Your task to perform on an android device: Open Google Chrome and open the bookmarks view Image 0: 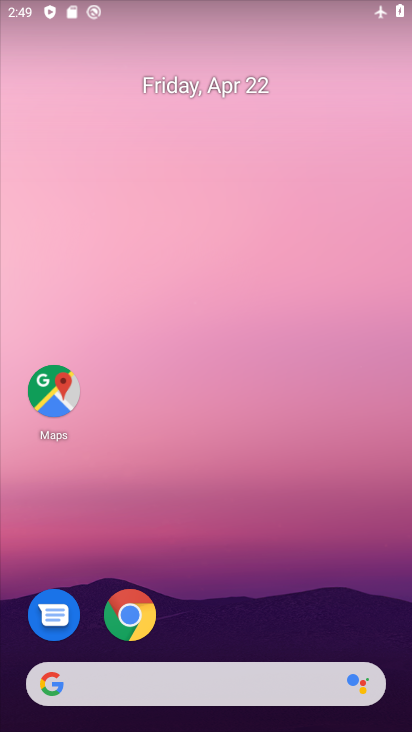
Step 0: drag from (288, 561) to (253, 160)
Your task to perform on an android device: Open Google Chrome and open the bookmarks view Image 1: 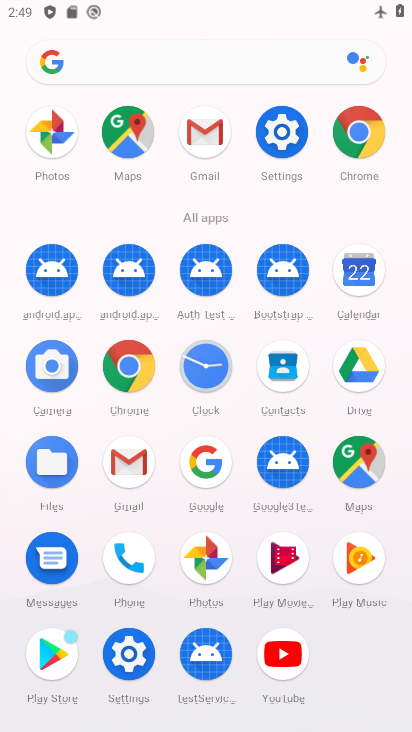
Step 1: click (379, 121)
Your task to perform on an android device: Open Google Chrome and open the bookmarks view Image 2: 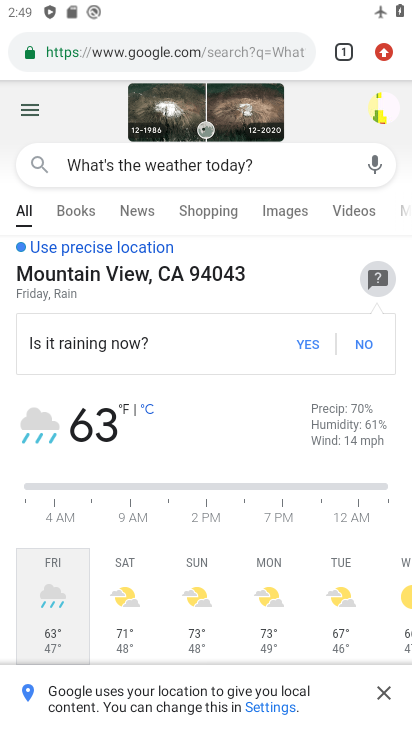
Step 2: click (384, 73)
Your task to perform on an android device: Open Google Chrome and open the bookmarks view Image 3: 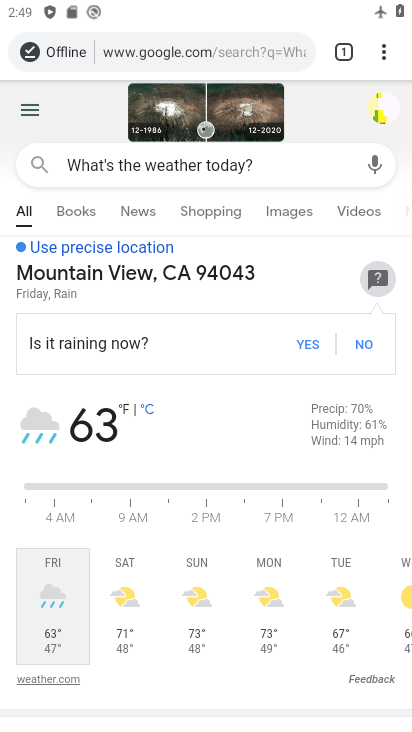
Step 3: click (385, 63)
Your task to perform on an android device: Open Google Chrome and open the bookmarks view Image 4: 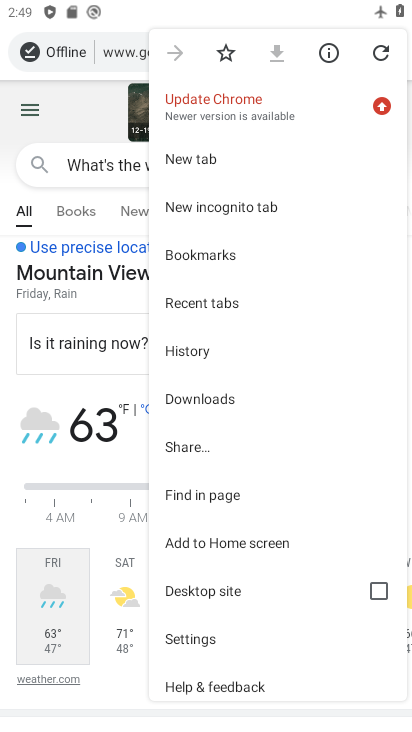
Step 4: click (218, 259)
Your task to perform on an android device: Open Google Chrome and open the bookmarks view Image 5: 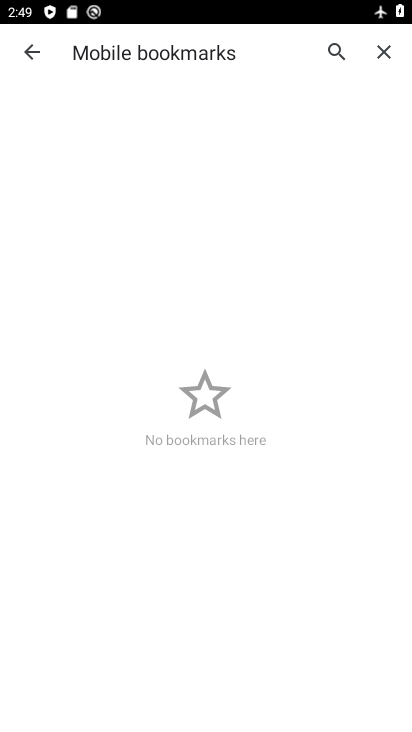
Step 5: task complete